Your task to perform on an android device: clear history in the chrome app Image 0: 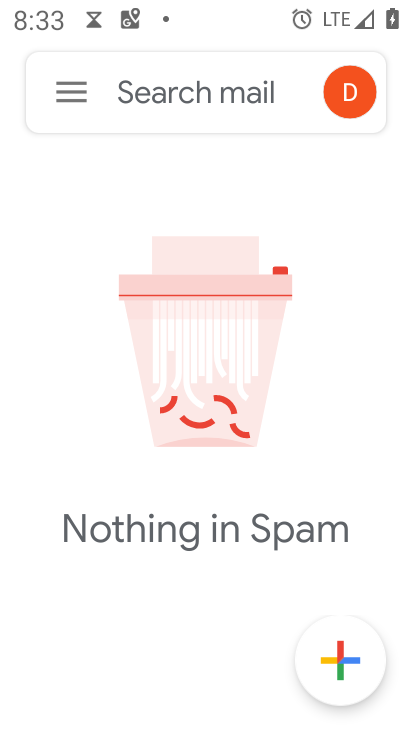
Step 0: press home button
Your task to perform on an android device: clear history in the chrome app Image 1: 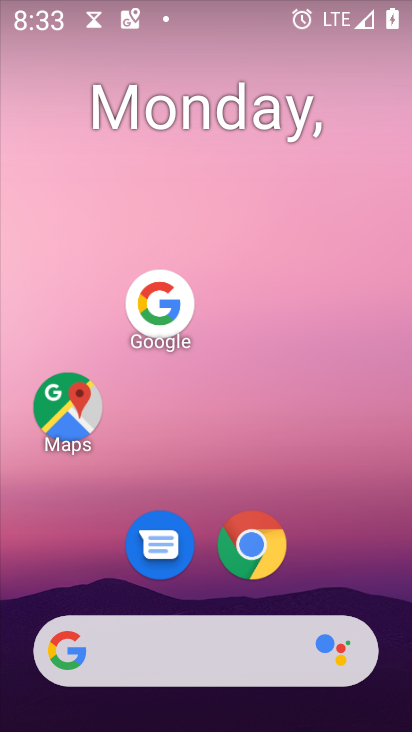
Step 1: click (234, 569)
Your task to perform on an android device: clear history in the chrome app Image 2: 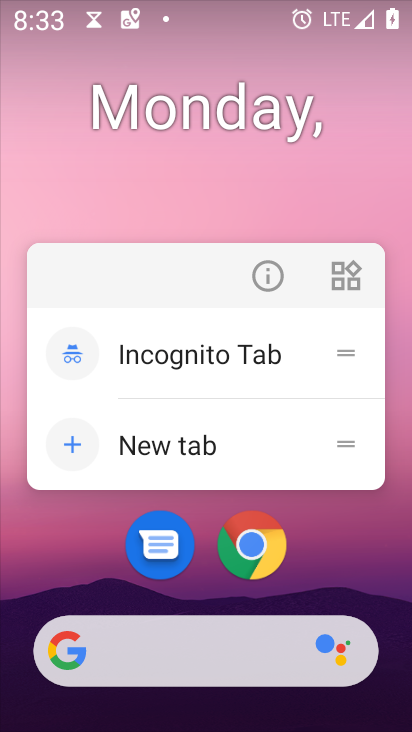
Step 2: click (262, 541)
Your task to perform on an android device: clear history in the chrome app Image 3: 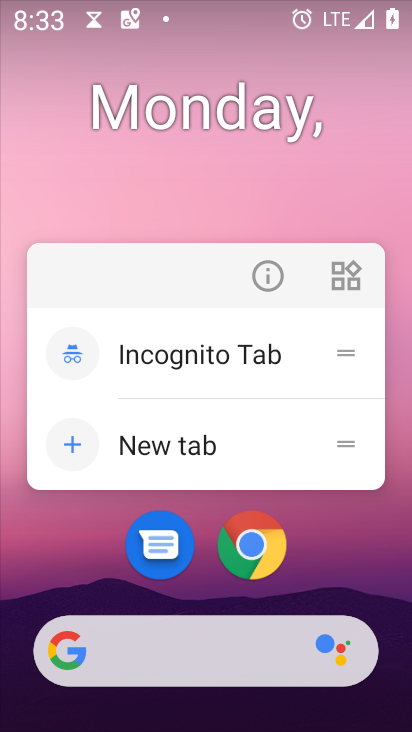
Step 3: click (258, 542)
Your task to perform on an android device: clear history in the chrome app Image 4: 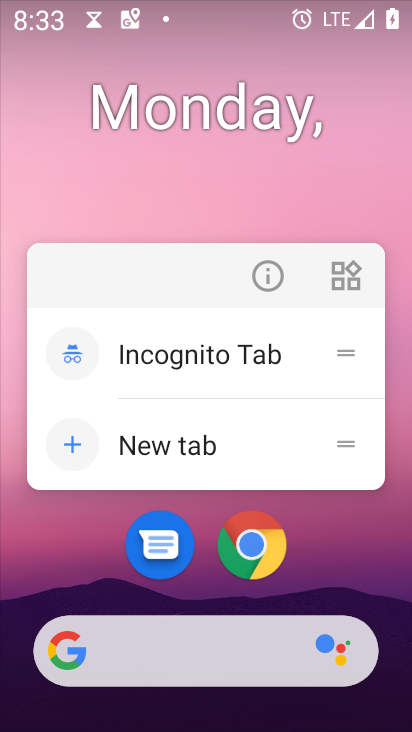
Step 4: click (244, 559)
Your task to perform on an android device: clear history in the chrome app Image 5: 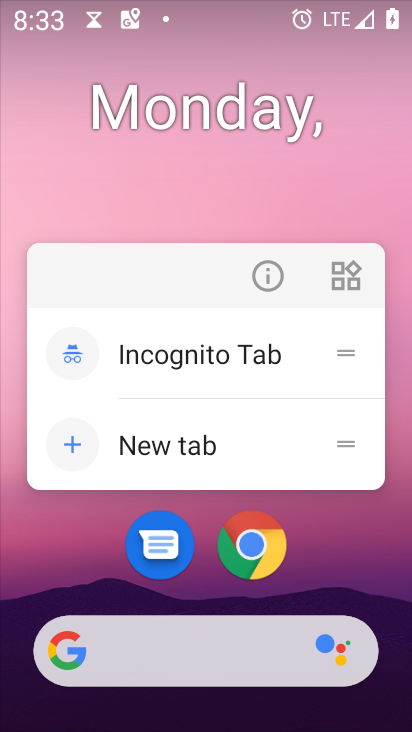
Step 5: click (253, 548)
Your task to perform on an android device: clear history in the chrome app Image 6: 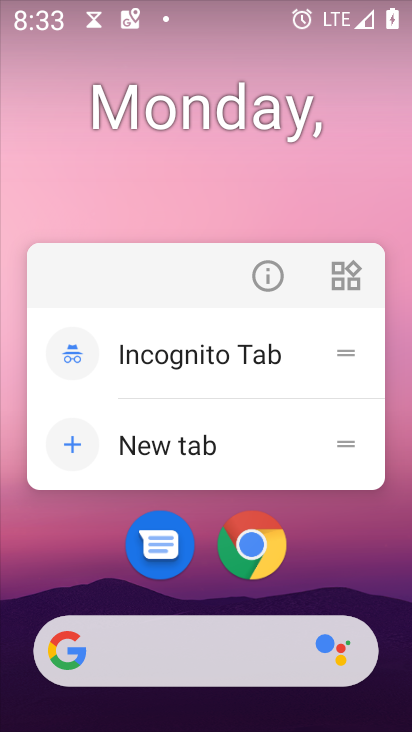
Step 6: click (247, 553)
Your task to perform on an android device: clear history in the chrome app Image 7: 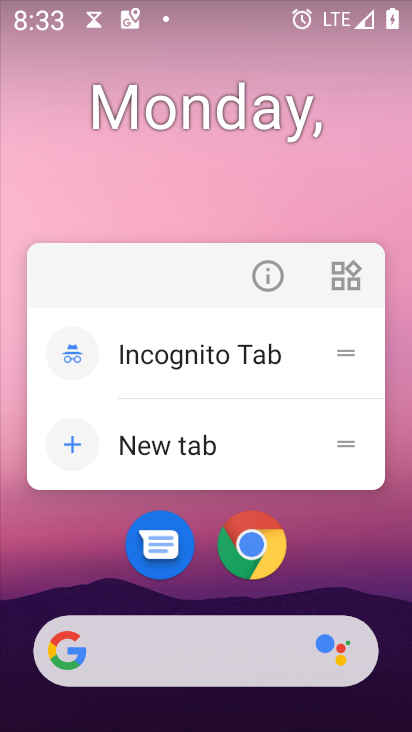
Step 7: click (230, 576)
Your task to perform on an android device: clear history in the chrome app Image 8: 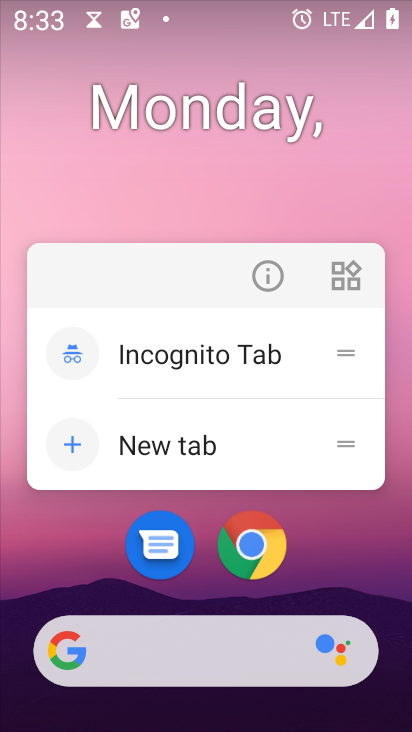
Step 8: click (260, 562)
Your task to perform on an android device: clear history in the chrome app Image 9: 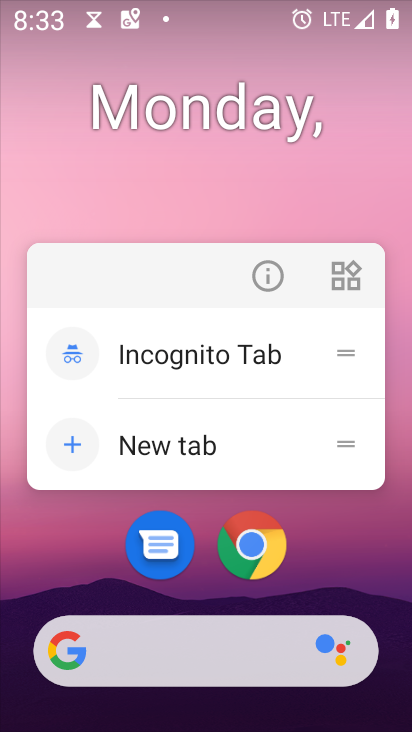
Step 9: click (257, 548)
Your task to perform on an android device: clear history in the chrome app Image 10: 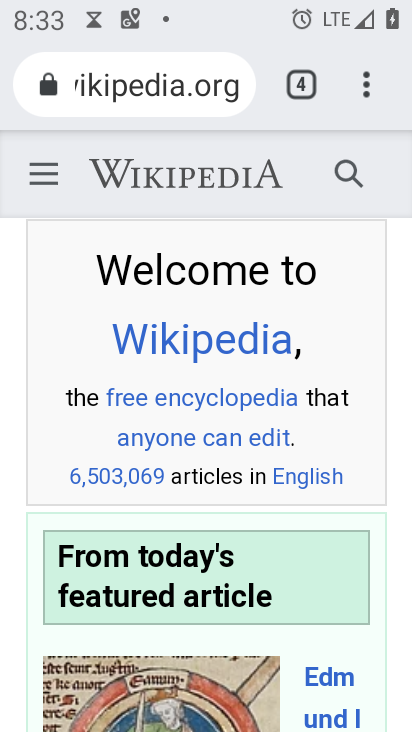
Step 10: drag from (372, 86) to (153, 492)
Your task to perform on an android device: clear history in the chrome app Image 11: 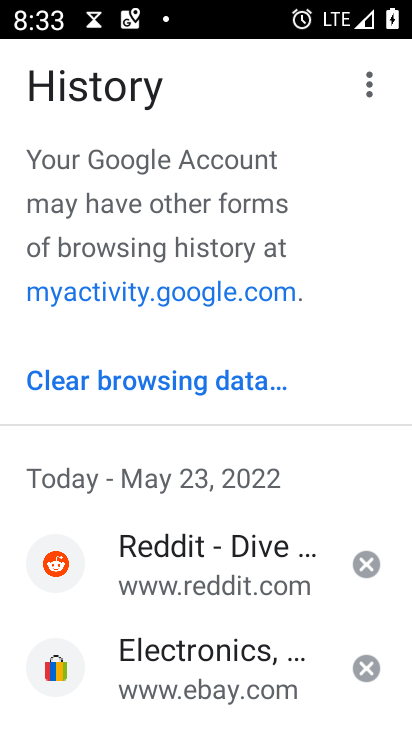
Step 11: click (160, 381)
Your task to perform on an android device: clear history in the chrome app Image 12: 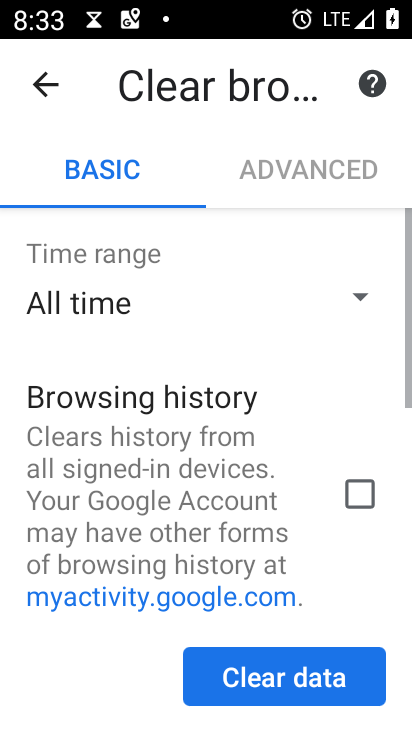
Step 12: click (366, 489)
Your task to perform on an android device: clear history in the chrome app Image 13: 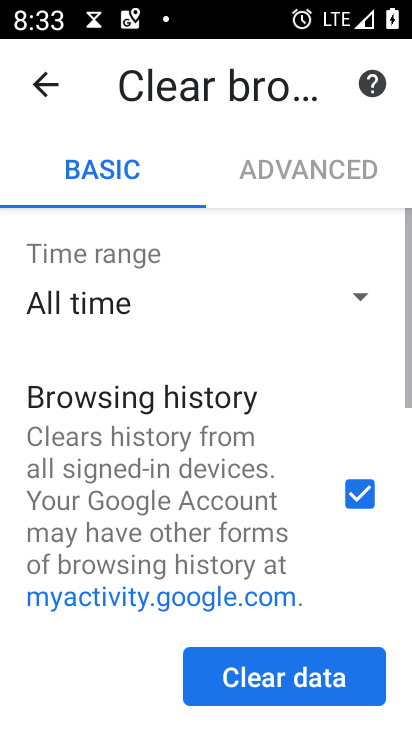
Step 13: drag from (281, 545) to (388, 140)
Your task to perform on an android device: clear history in the chrome app Image 14: 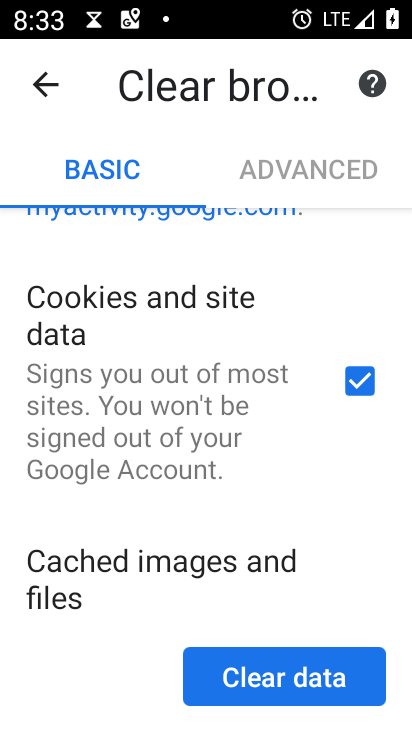
Step 14: drag from (285, 507) to (327, 232)
Your task to perform on an android device: clear history in the chrome app Image 15: 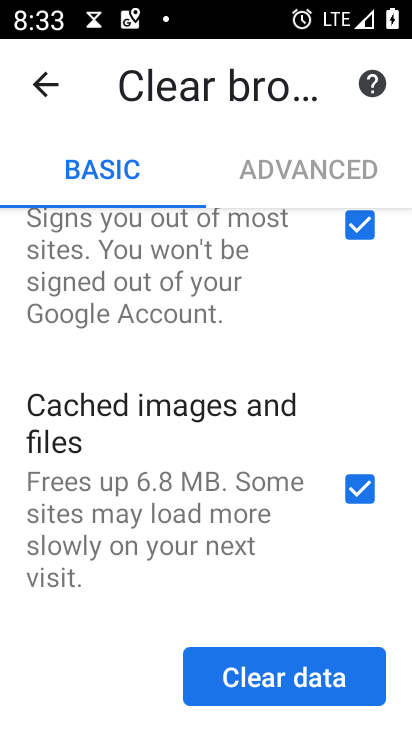
Step 15: click (280, 674)
Your task to perform on an android device: clear history in the chrome app Image 16: 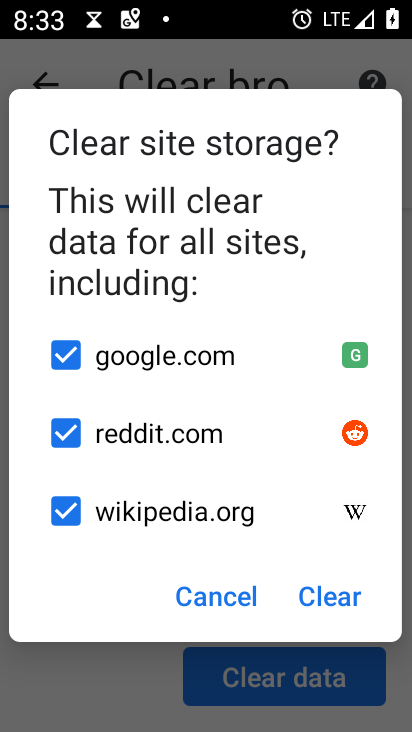
Step 16: click (327, 595)
Your task to perform on an android device: clear history in the chrome app Image 17: 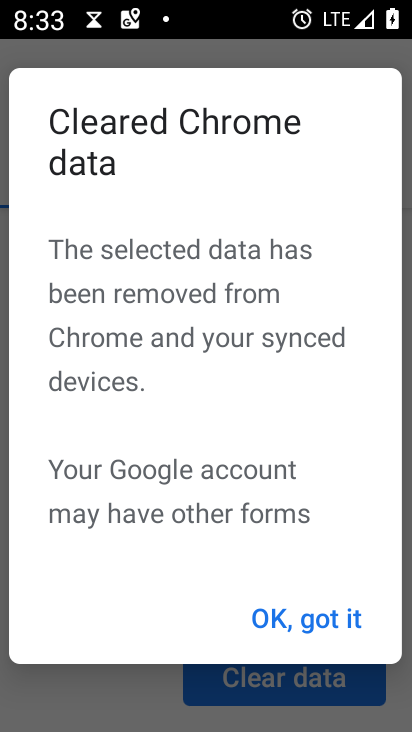
Step 17: click (309, 623)
Your task to perform on an android device: clear history in the chrome app Image 18: 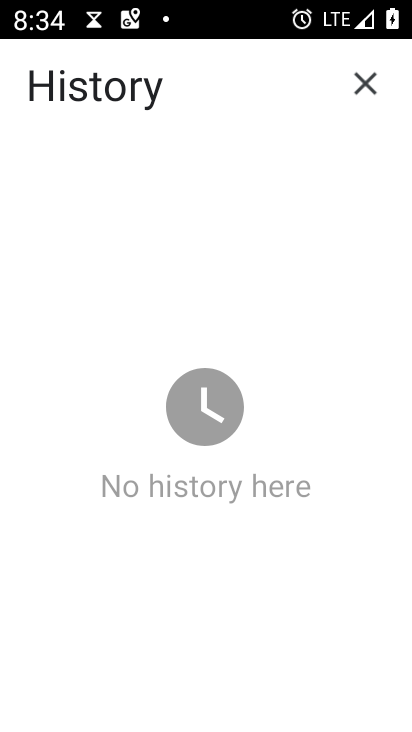
Step 18: task complete